Your task to perform on an android device: Open Google Maps and go to "Timeline" Image 0: 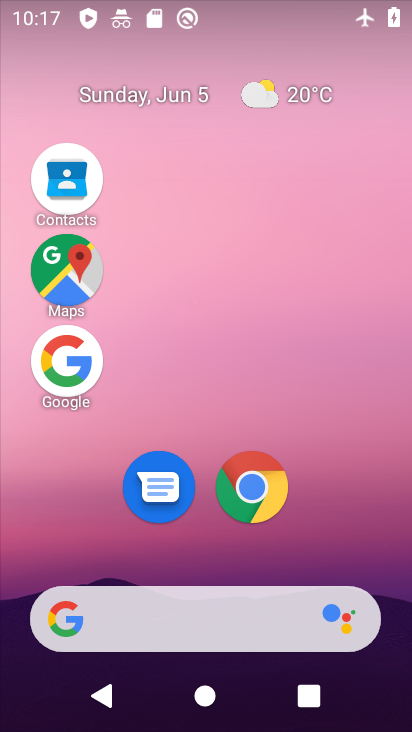
Step 0: drag from (203, 597) to (240, 76)
Your task to perform on an android device: Open Google Maps and go to "Timeline" Image 1: 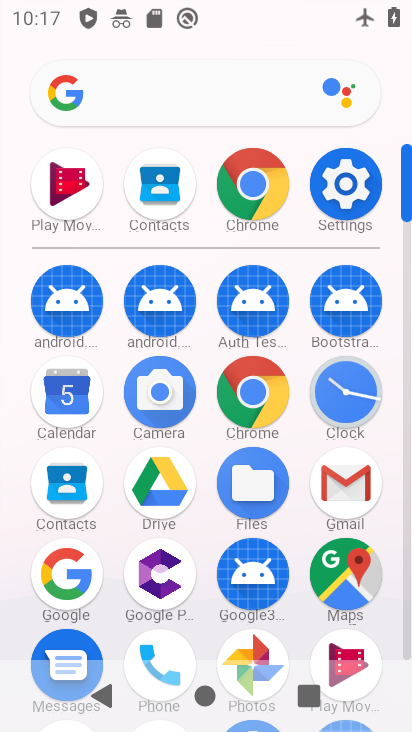
Step 1: click (367, 559)
Your task to perform on an android device: Open Google Maps and go to "Timeline" Image 2: 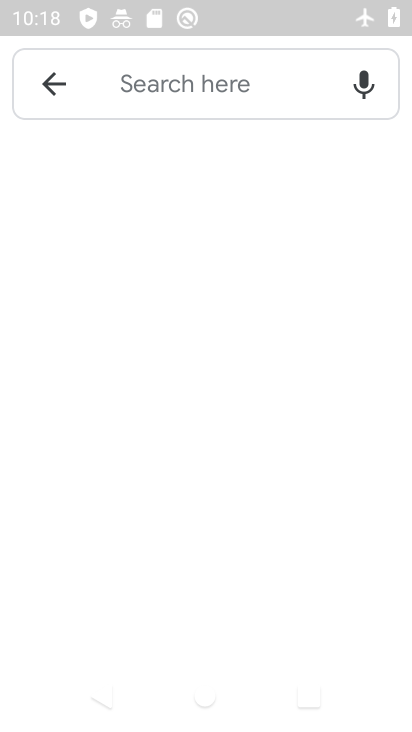
Step 2: click (64, 91)
Your task to perform on an android device: Open Google Maps and go to "Timeline" Image 3: 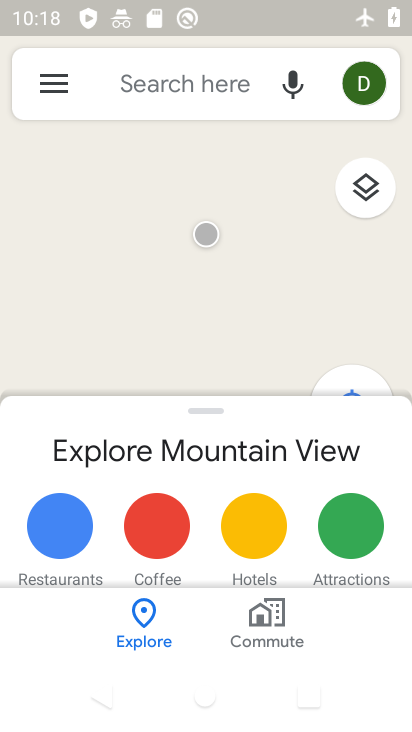
Step 3: click (64, 91)
Your task to perform on an android device: Open Google Maps and go to "Timeline" Image 4: 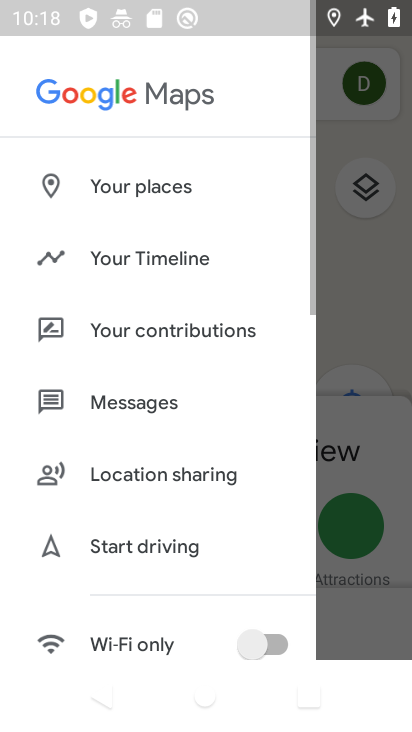
Step 4: click (172, 259)
Your task to perform on an android device: Open Google Maps and go to "Timeline" Image 5: 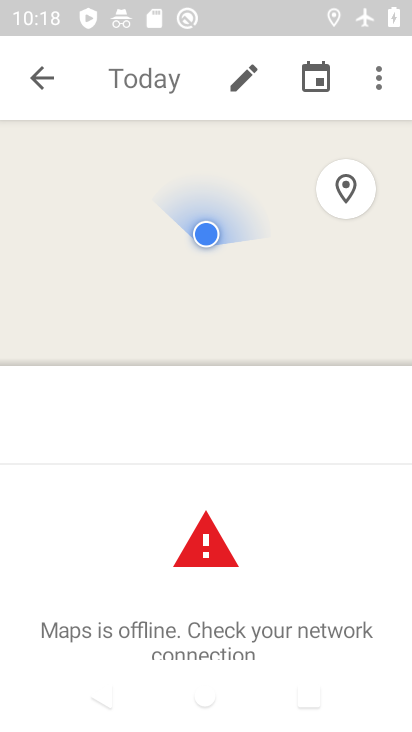
Step 5: task complete